Your task to perform on an android device: turn off javascript in the chrome app Image 0: 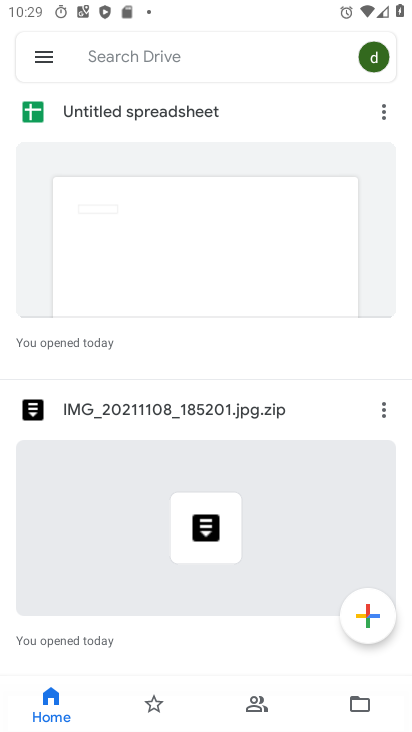
Step 0: press home button
Your task to perform on an android device: turn off javascript in the chrome app Image 1: 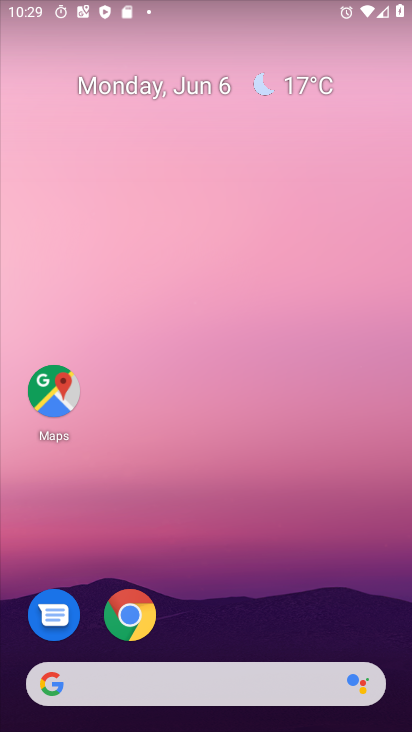
Step 1: click (128, 612)
Your task to perform on an android device: turn off javascript in the chrome app Image 2: 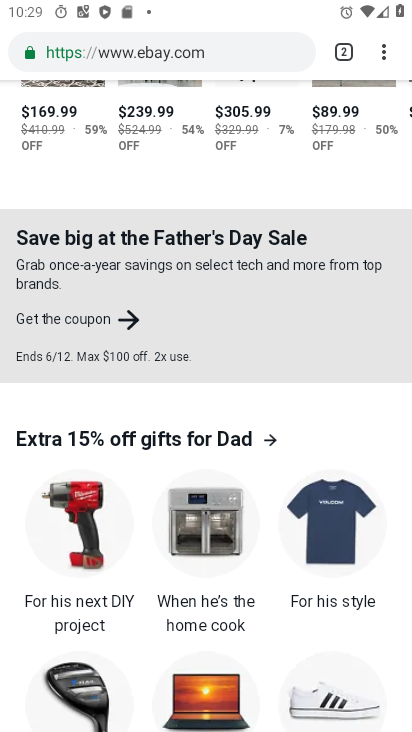
Step 2: click (384, 46)
Your task to perform on an android device: turn off javascript in the chrome app Image 3: 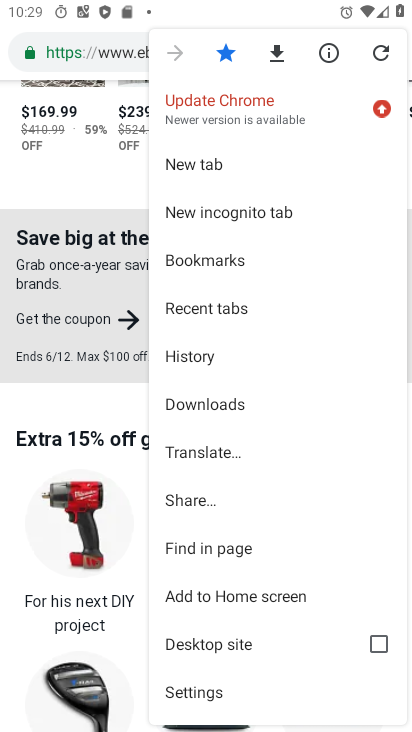
Step 3: click (233, 685)
Your task to perform on an android device: turn off javascript in the chrome app Image 4: 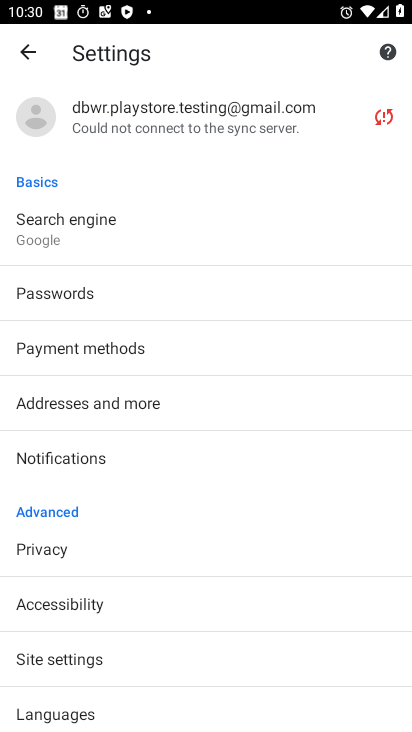
Step 4: click (118, 660)
Your task to perform on an android device: turn off javascript in the chrome app Image 5: 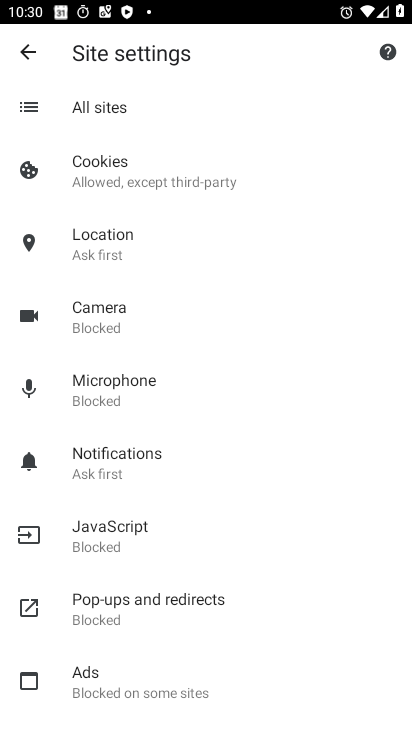
Step 5: click (115, 526)
Your task to perform on an android device: turn off javascript in the chrome app Image 6: 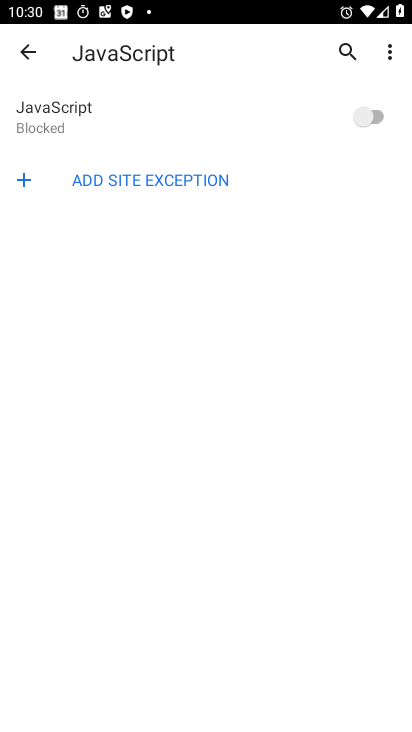
Step 6: task complete